Your task to perform on an android device: turn off location history Image 0: 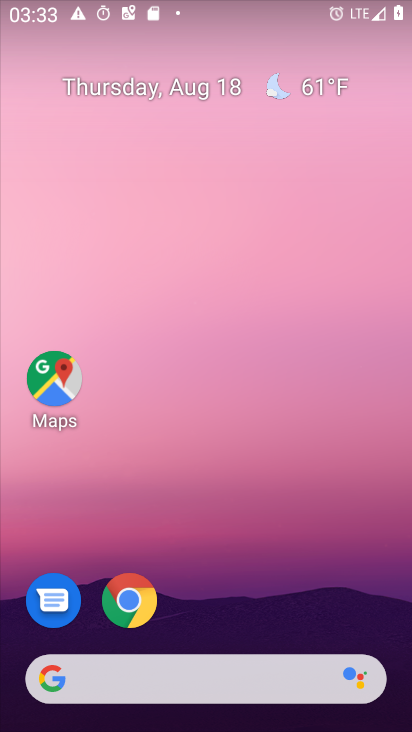
Step 0: press home button
Your task to perform on an android device: turn off location history Image 1: 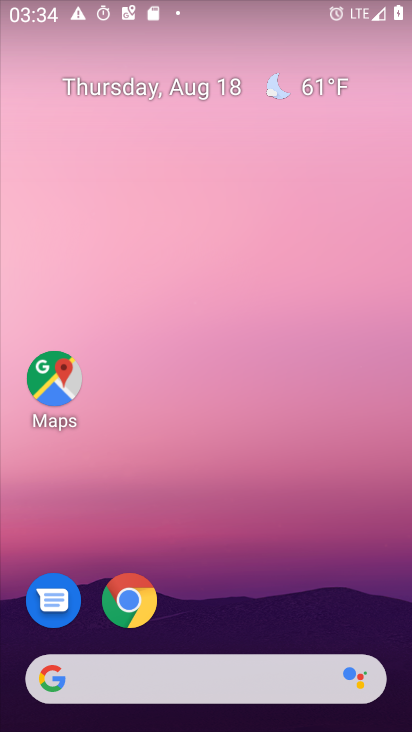
Step 1: drag from (282, 613) to (357, 3)
Your task to perform on an android device: turn off location history Image 2: 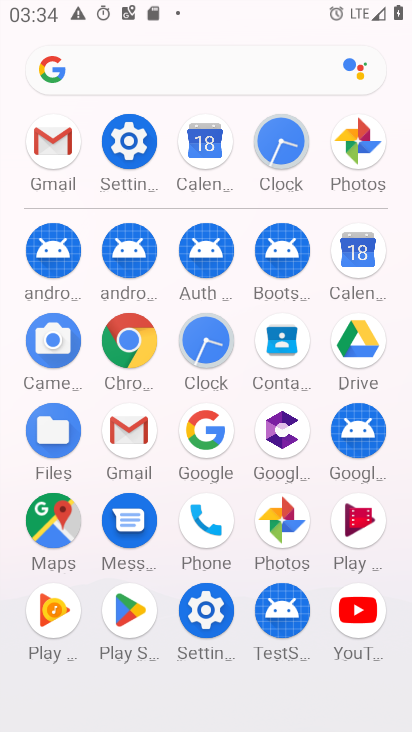
Step 2: click (131, 140)
Your task to perform on an android device: turn off location history Image 3: 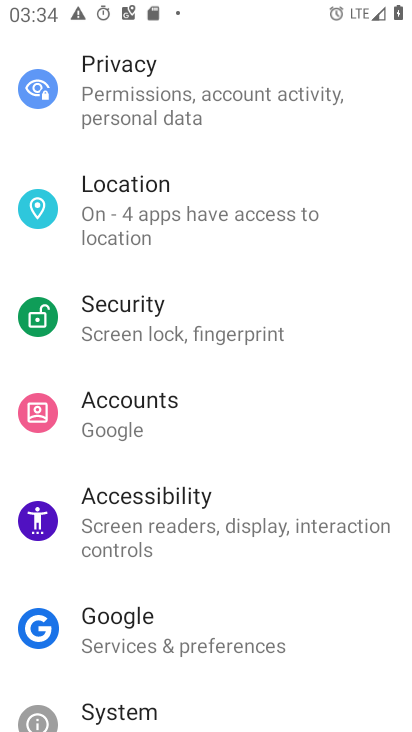
Step 3: click (127, 211)
Your task to perform on an android device: turn off location history Image 4: 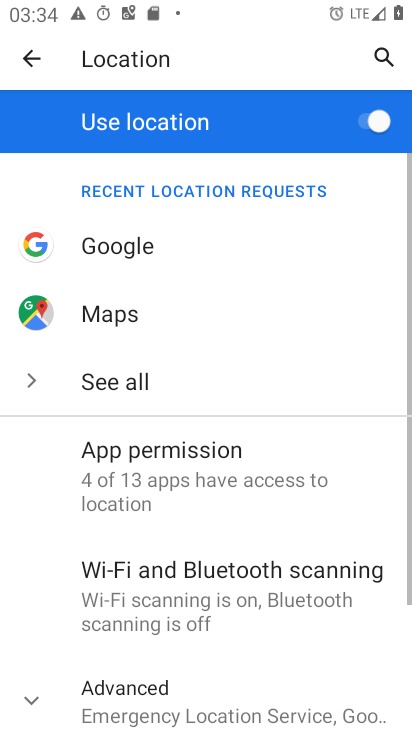
Step 4: drag from (296, 634) to (307, 144)
Your task to perform on an android device: turn off location history Image 5: 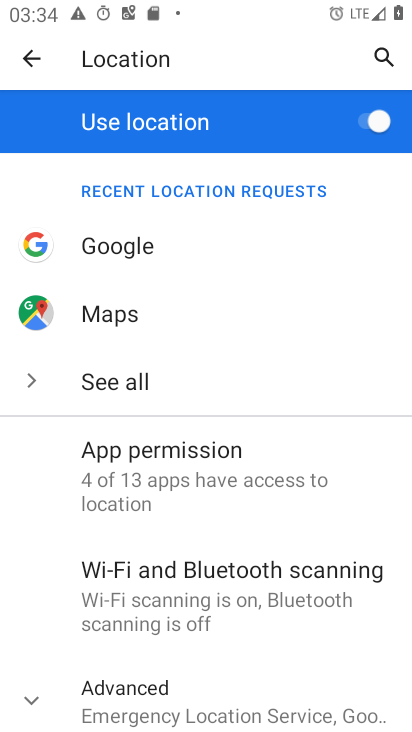
Step 5: click (118, 714)
Your task to perform on an android device: turn off location history Image 6: 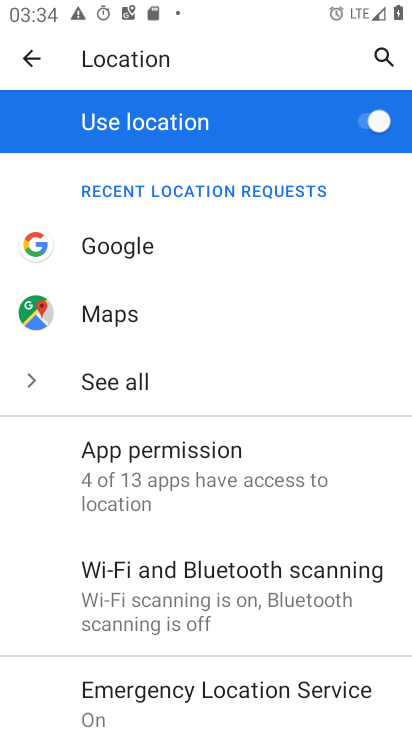
Step 6: drag from (269, 661) to (312, 184)
Your task to perform on an android device: turn off location history Image 7: 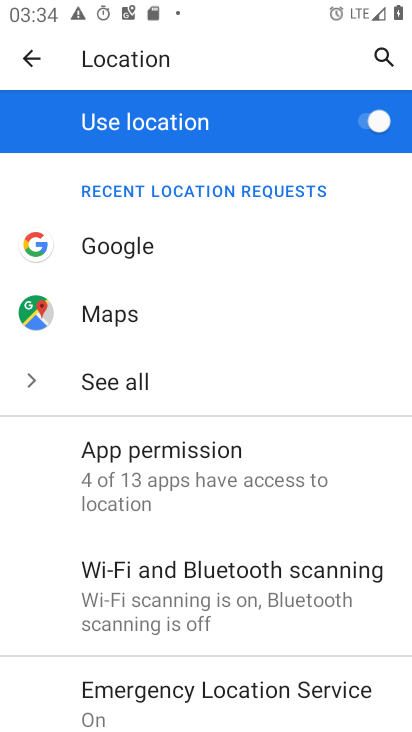
Step 7: drag from (316, 673) to (330, 169)
Your task to perform on an android device: turn off location history Image 8: 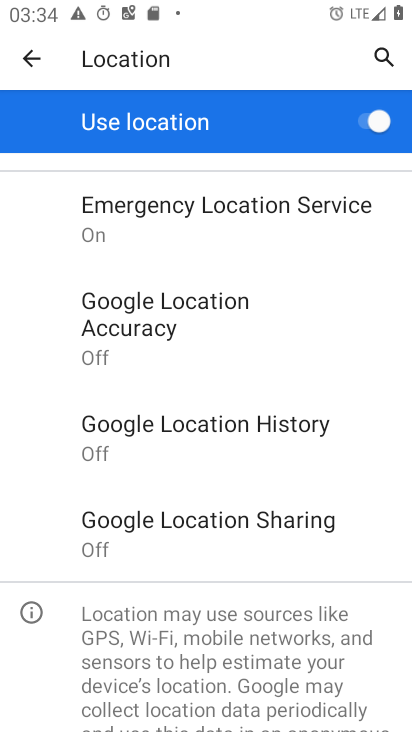
Step 8: click (214, 428)
Your task to perform on an android device: turn off location history Image 9: 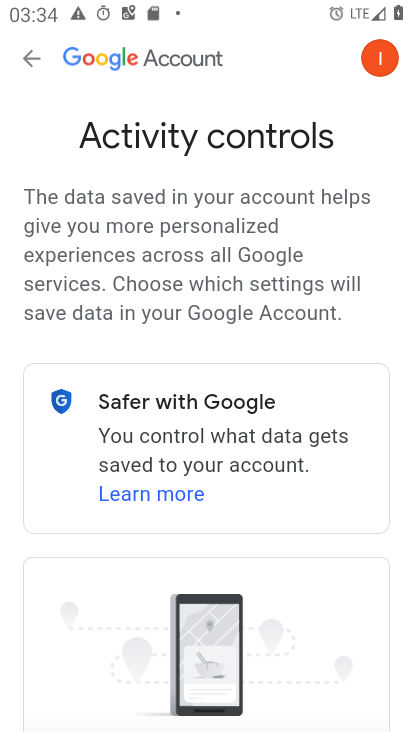
Step 9: task complete